Your task to perform on an android device: Add "amazon basics triple a" to the cart on ebay Image 0: 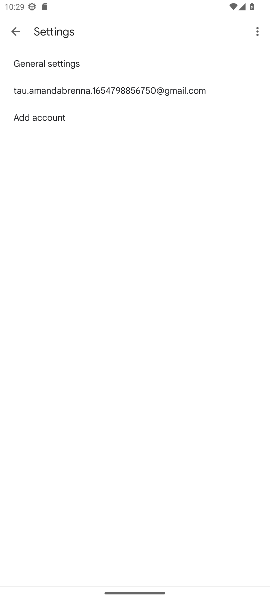
Step 0: press home button
Your task to perform on an android device: Add "amazon basics triple a" to the cart on ebay Image 1: 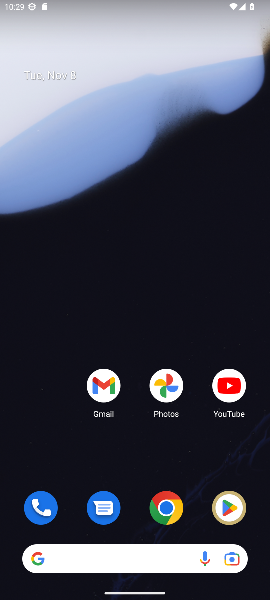
Step 1: click (167, 510)
Your task to perform on an android device: Add "amazon basics triple a" to the cart on ebay Image 2: 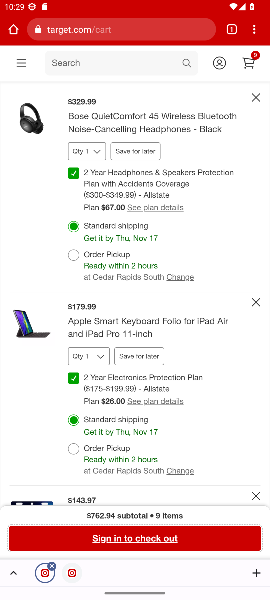
Step 2: click (71, 28)
Your task to perform on an android device: Add "amazon basics triple a" to the cart on ebay Image 3: 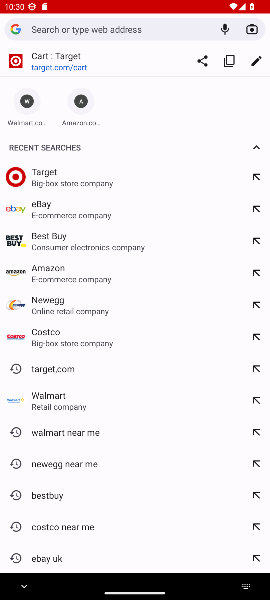
Step 3: click (57, 209)
Your task to perform on an android device: Add "amazon basics triple a" to the cart on ebay Image 4: 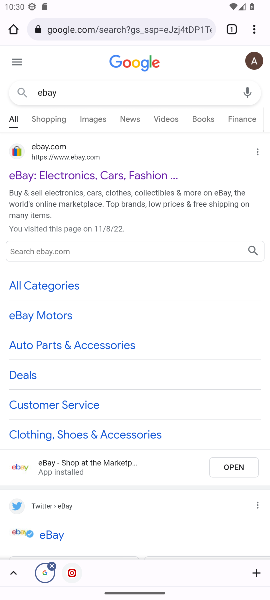
Step 4: click (60, 172)
Your task to perform on an android device: Add "amazon basics triple a" to the cart on ebay Image 5: 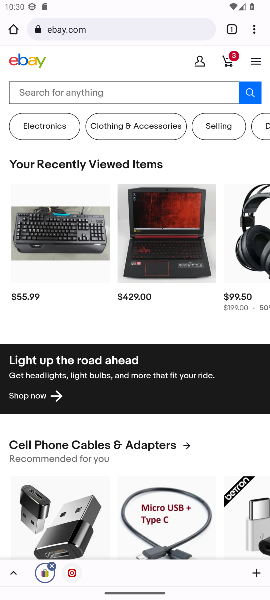
Step 5: click (74, 88)
Your task to perform on an android device: Add "amazon basics triple a" to the cart on ebay Image 6: 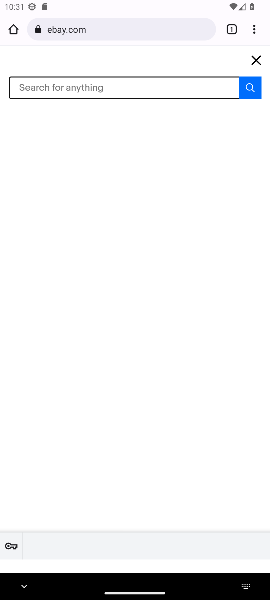
Step 6: type "amazon basic triple"
Your task to perform on an android device: Add "amazon basics triple a" to the cart on ebay Image 7: 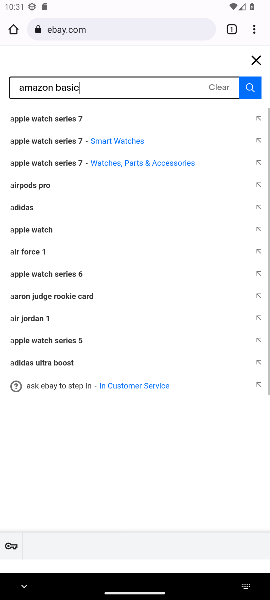
Step 7: type ""
Your task to perform on an android device: Add "amazon basics triple a" to the cart on ebay Image 8: 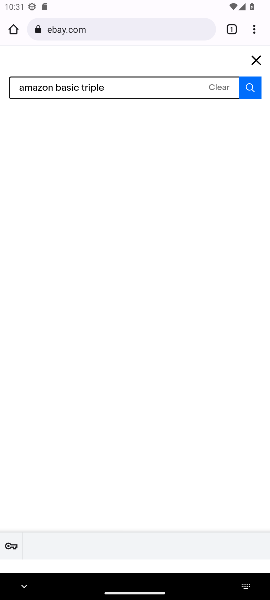
Step 8: click (250, 84)
Your task to perform on an android device: Add "amazon basics triple a" to the cart on ebay Image 9: 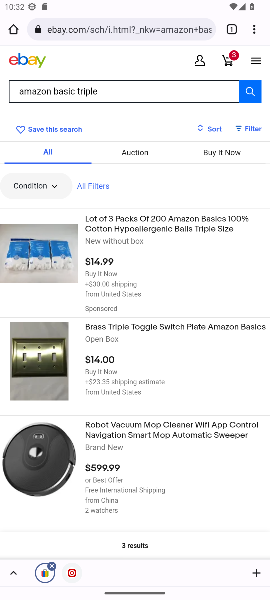
Step 9: click (105, 323)
Your task to perform on an android device: Add "amazon basics triple a" to the cart on ebay Image 10: 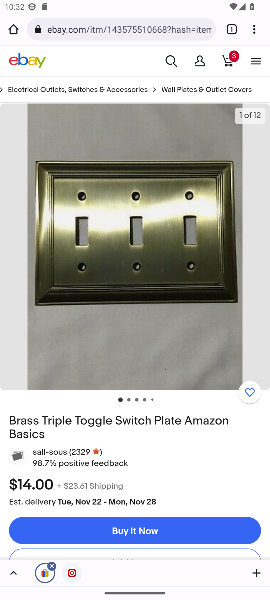
Step 10: click (156, 533)
Your task to perform on an android device: Add "amazon basics triple a" to the cart on ebay Image 11: 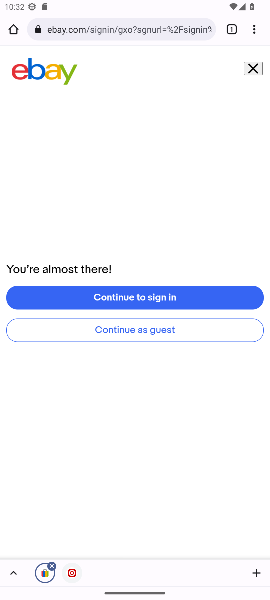
Step 11: task complete